Your task to perform on an android device: open app "Instagram" Image 0: 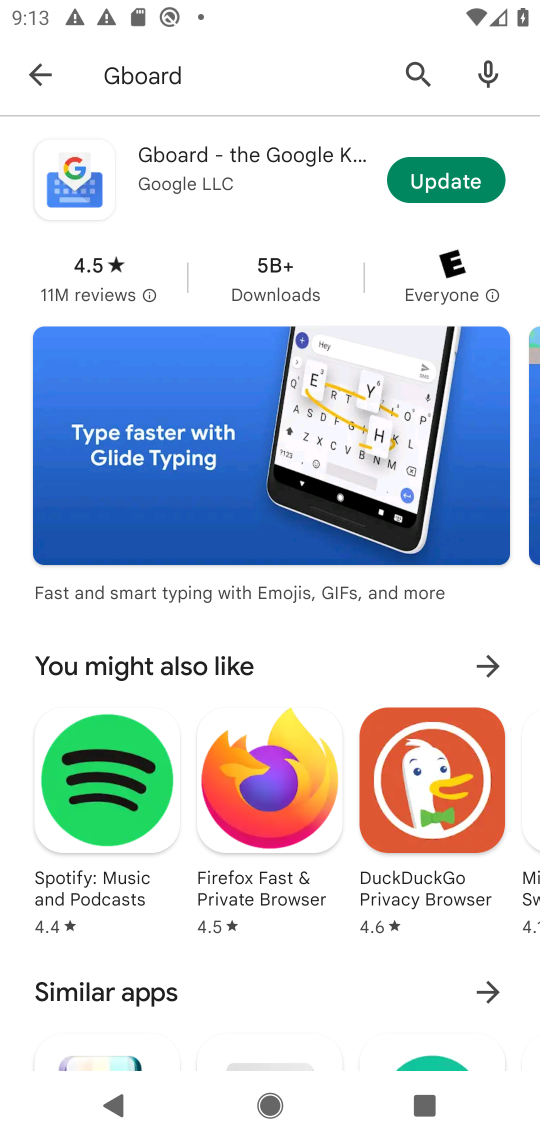
Step 0: press home button
Your task to perform on an android device: open app "Instagram" Image 1: 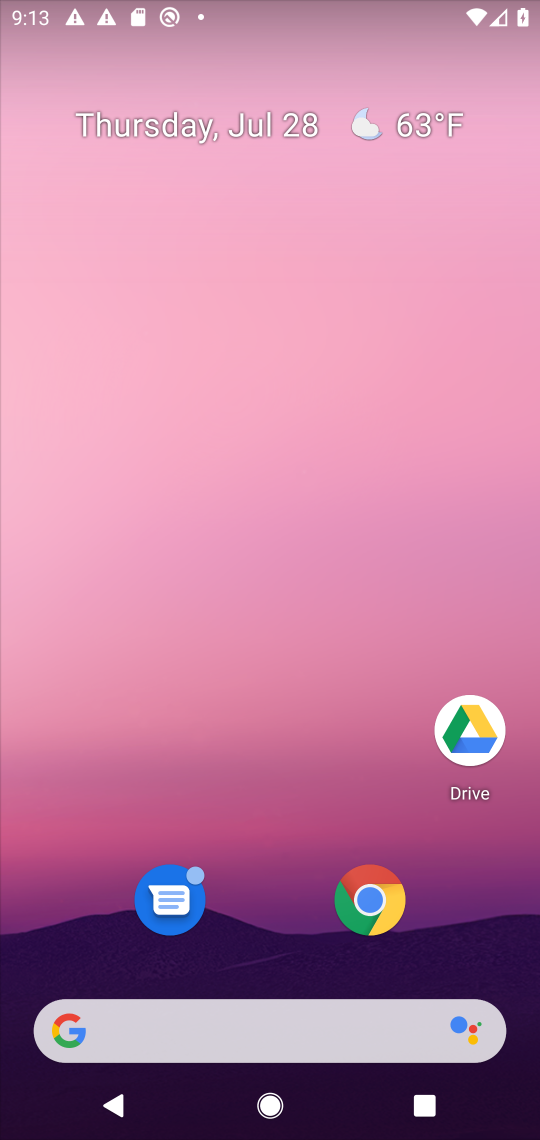
Step 1: task complete